Your task to perform on an android device: Play the last video I watched on Youtube Image 0: 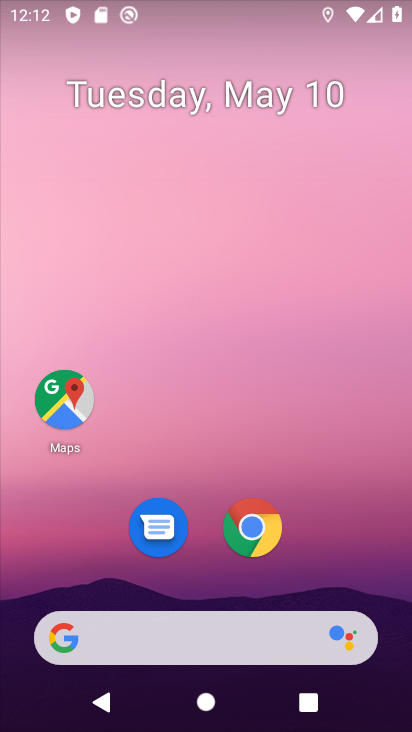
Step 0: drag from (346, 575) to (324, 154)
Your task to perform on an android device: Play the last video I watched on Youtube Image 1: 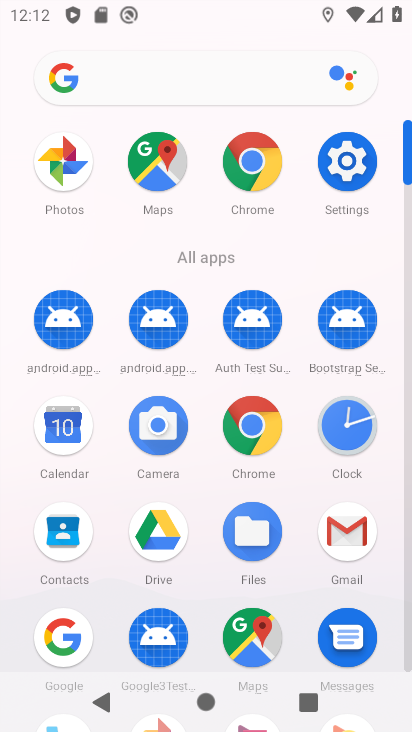
Step 1: drag from (189, 612) to (171, 216)
Your task to perform on an android device: Play the last video I watched on Youtube Image 2: 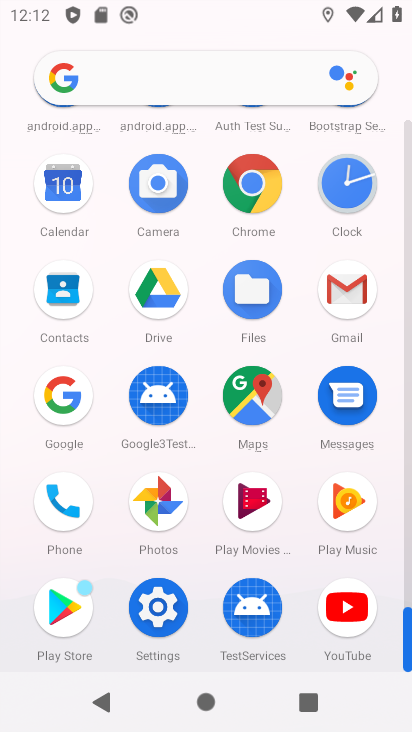
Step 2: click (359, 612)
Your task to perform on an android device: Play the last video I watched on Youtube Image 3: 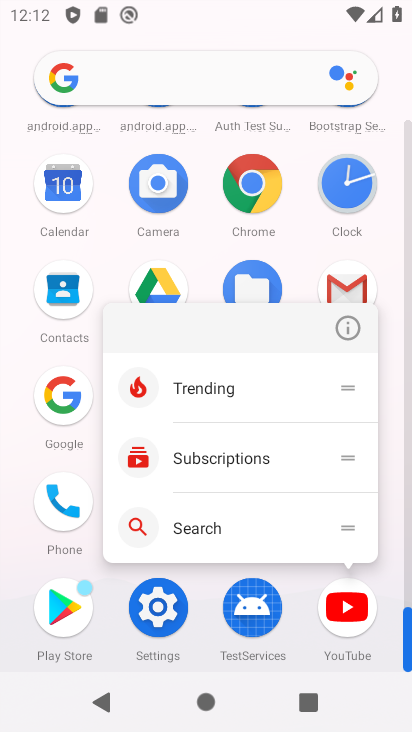
Step 3: click (348, 621)
Your task to perform on an android device: Play the last video I watched on Youtube Image 4: 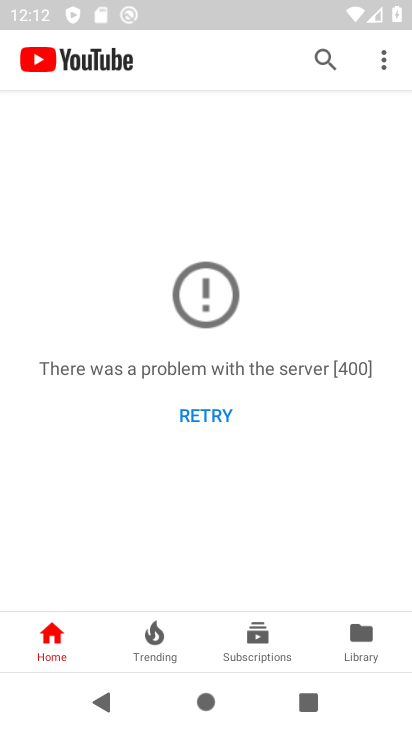
Step 4: click (358, 635)
Your task to perform on an android device: Play the last video I watched on Youtube Image 5: 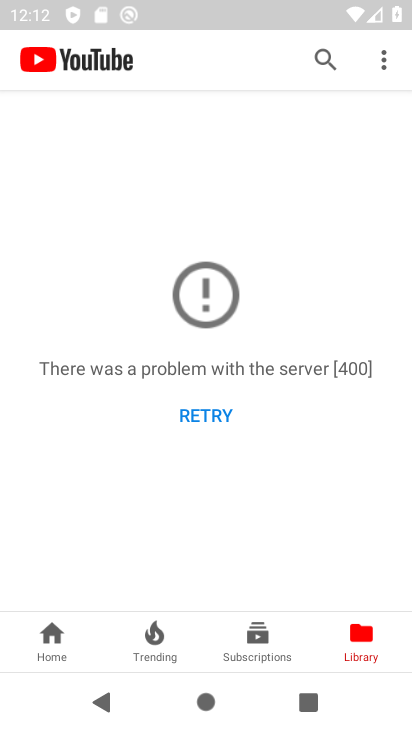
Step 5: task complete